Your task to perform on an android device: turn off location history Image 0: 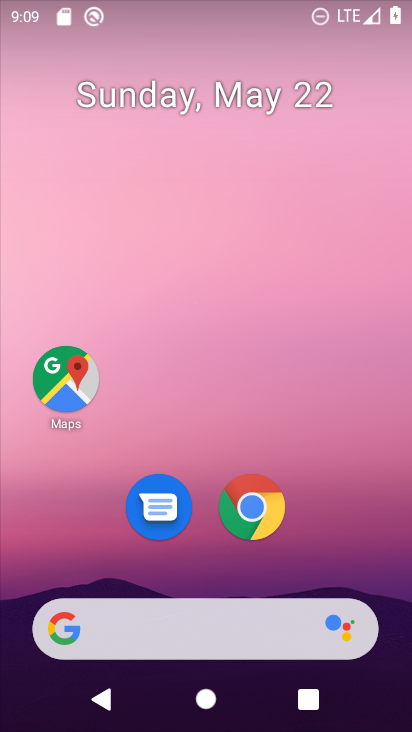
Step 0: click (74, 388)
Your task to perform on an android device: turn off location history Image 1: 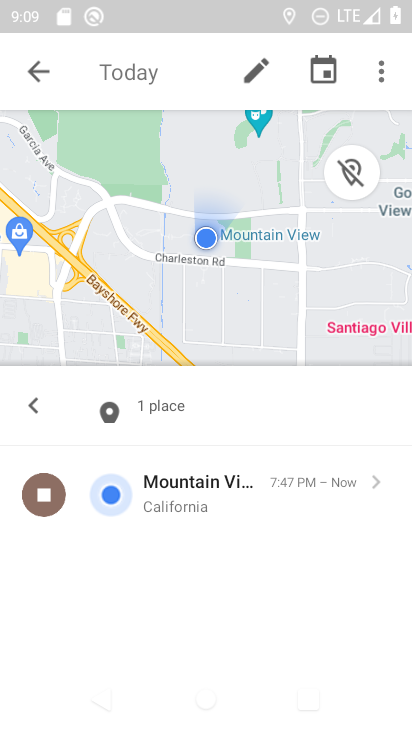
Step 1: click (45, 64)
Your task to perform on an android device: turn off location history Image 2: 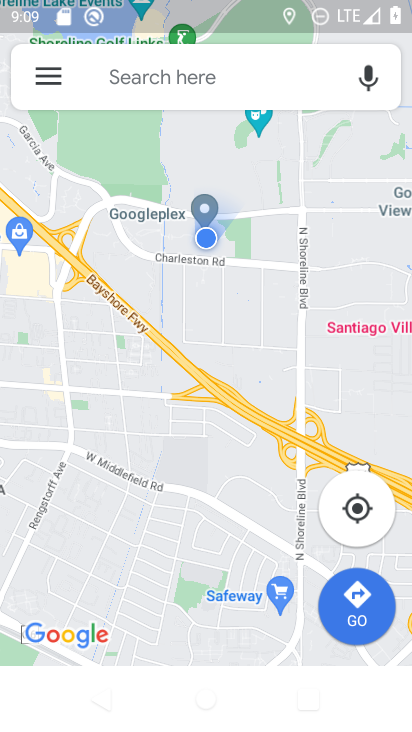
Step 2: click (45, 64)
Your task to perform on an android device: turn off location history Image 3: 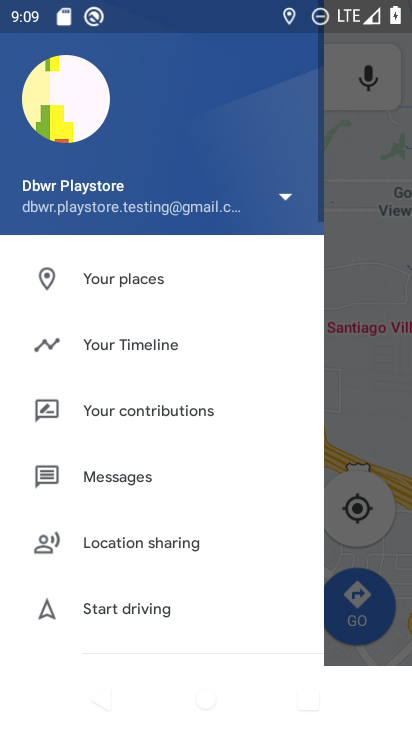
Step 3: drag from (158, 526) to (190, 10)
Your task to perform on an android device: turn off location history Image 4: 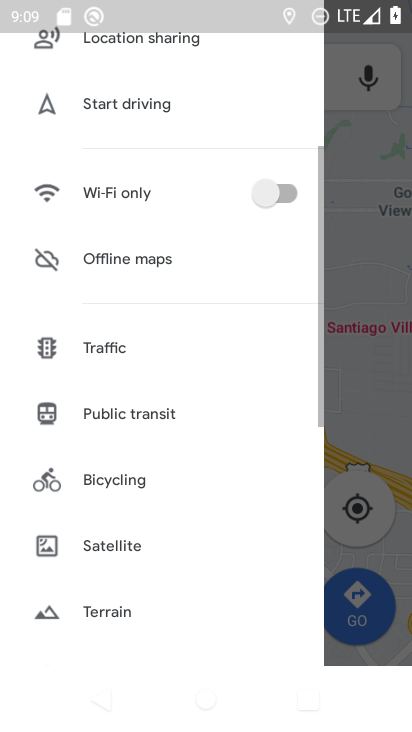
Step 4: drag from (150, 558) to (162, 16)
Your task to perform on an android device: turn off location history Image 5: 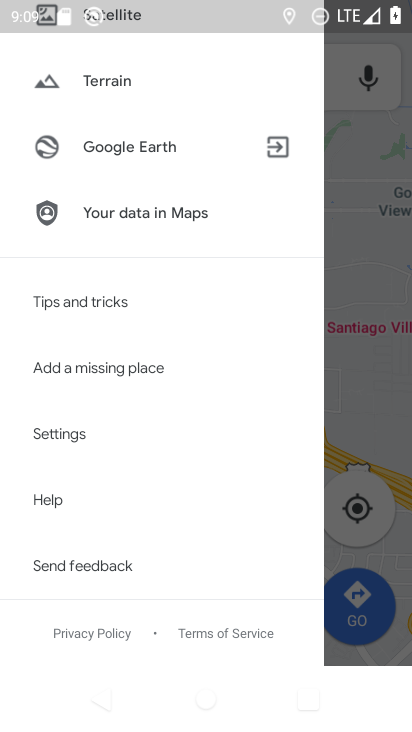
Step 5: click (91, 432)
Your task to perform on an android device: turn off location history Image 6: 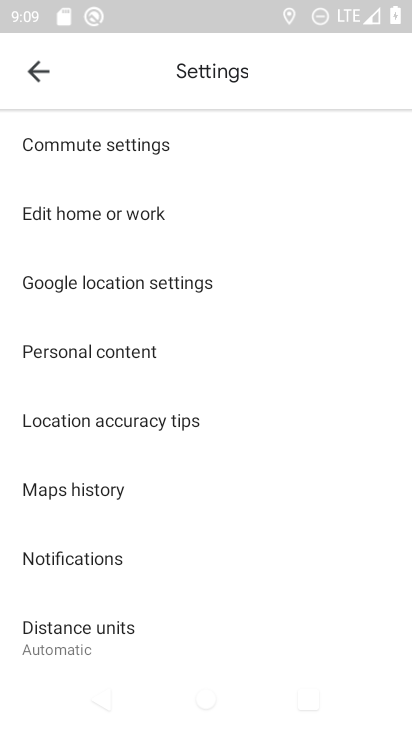
Step 6: click (165, 283)
Your task to perform on an android device: turn off location history Image 7: 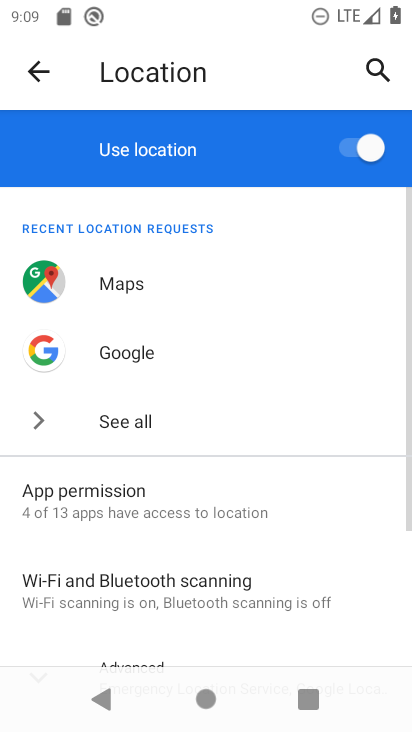
Step 7: drag from (250, 503) to (255, 76)
Your task to perform on an android device: turn off location history Image 8: 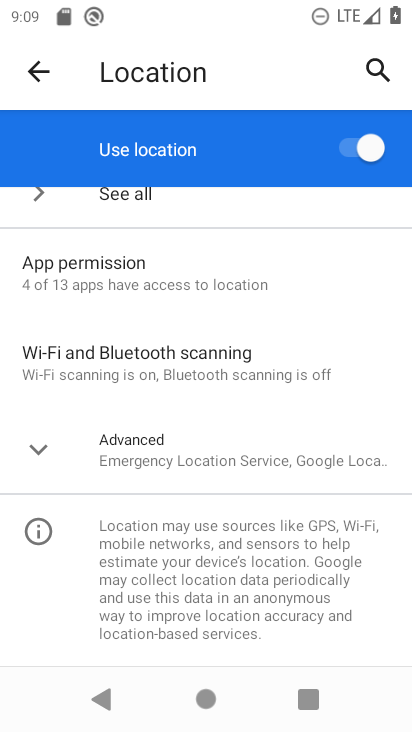
Step 8: click (294, 461)
Your task to perform on an android device: turn off location history Image 9: 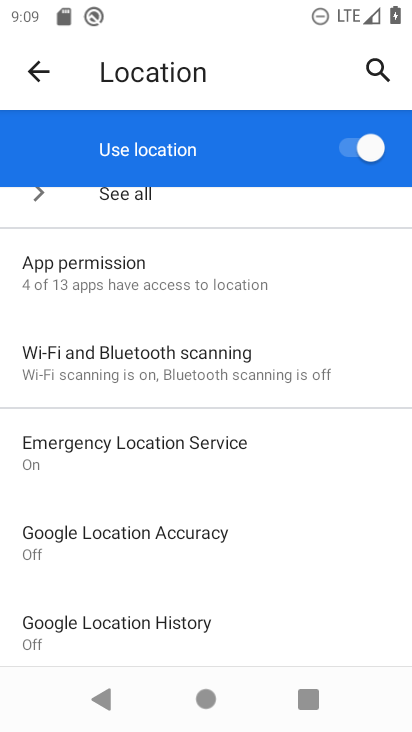
Step 9: click (166, 627)
Your task to perform on an android device: turn off location history Image 10: 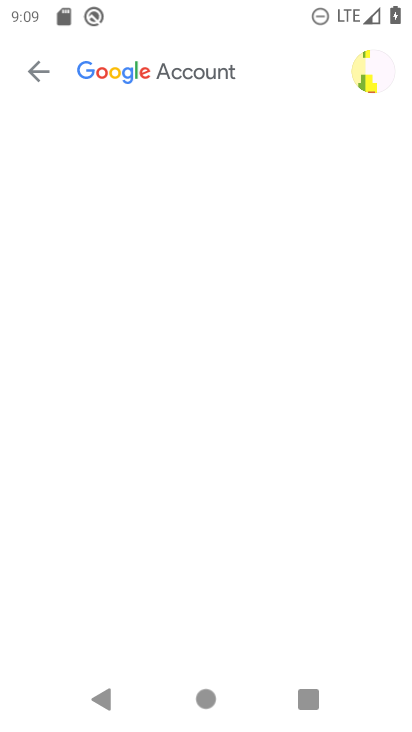
Step 10: task complete